Your task to perform on an android device: turn on airplane mode Image 0: 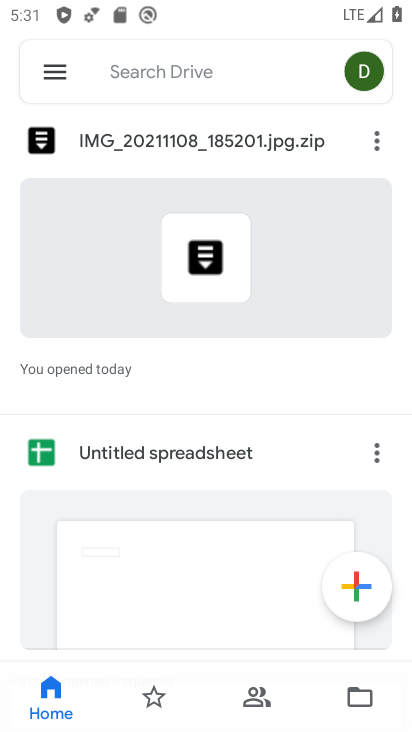
Step 0: press home button
Your task to perform on an android device: turn on airplane mode Image 1: 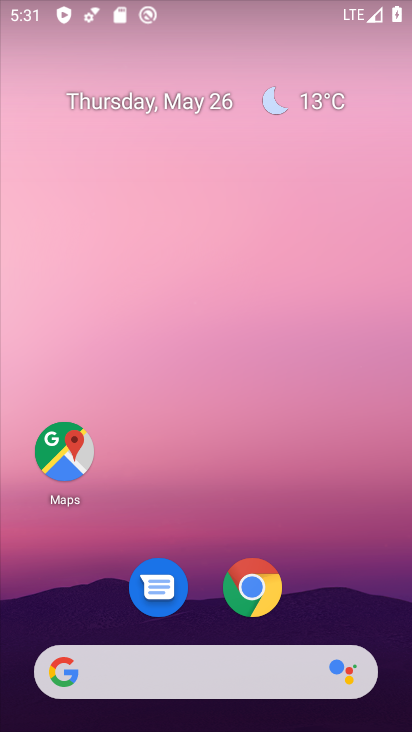
Step 1: drag from (212, 701) to (223, 106)
Your task to perform on an android device: turn on airplane mode Image 2: 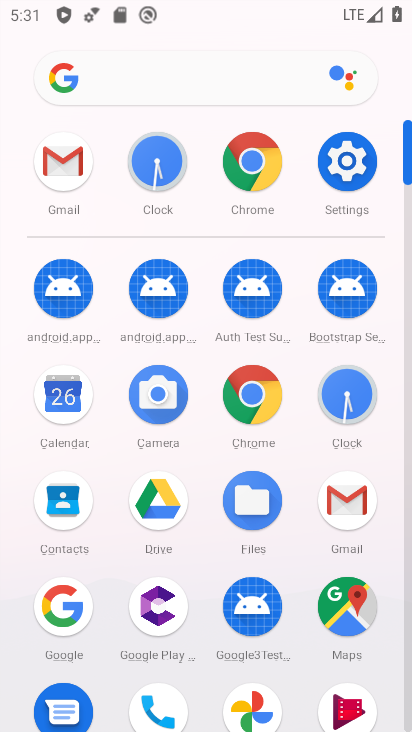
Step 2: click (345, 168)
Your task to perform on an android device: turn on airplane mode Image 3: 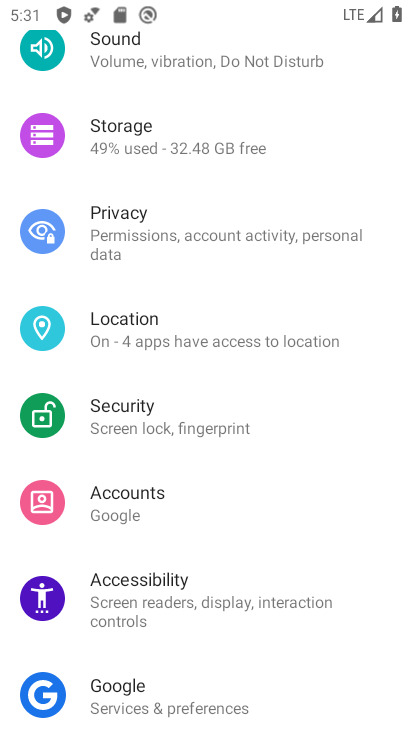
Step 3: drag from (206, 116) to (204, 569)
Your task to perform on an android device: turn on airplane mode Image 4: 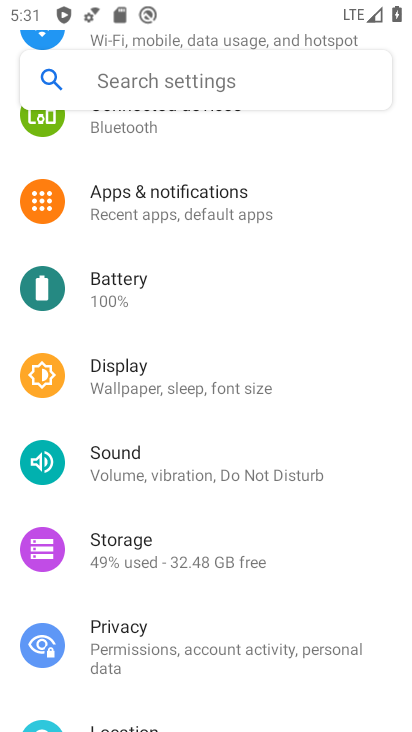
Step 4: drag from (203, 185) to (225, 674)
Your task to perform on an android device: turn on airplane mode Image 5: 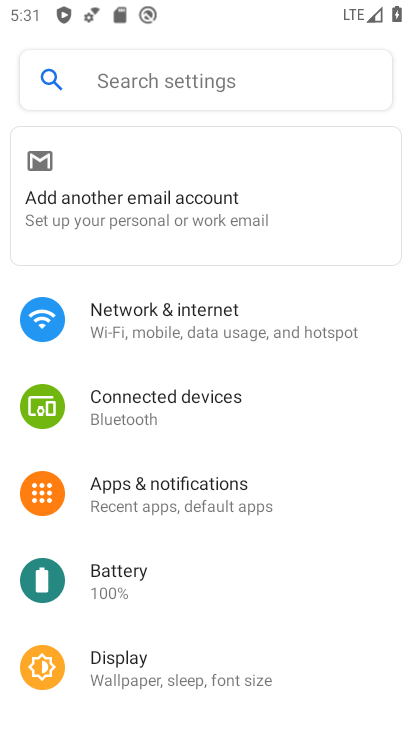
Step 5: click (166, 314)
Your task to perform on an android device: turn on airplane mode Image 6: 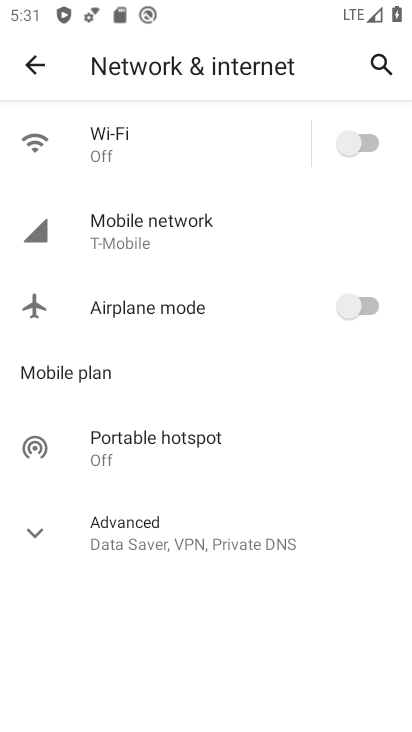
Step 6: click (372, 305)
Your task to perform on an android device: turn on airplane mode Image 7: 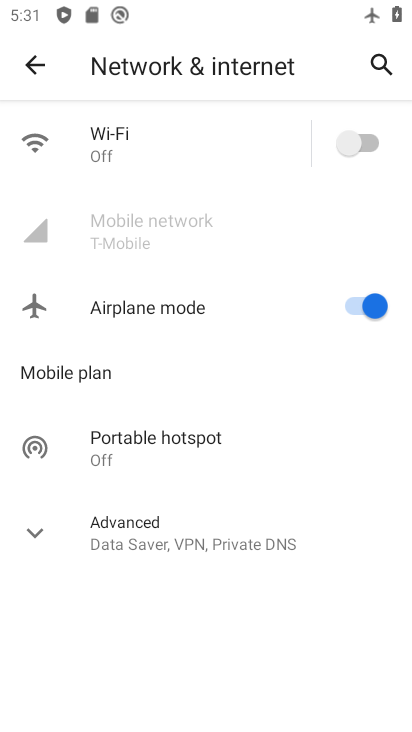
Step 7: task complete